Your task to perform on an android device: refresh tabs in the chrome app Image 0: 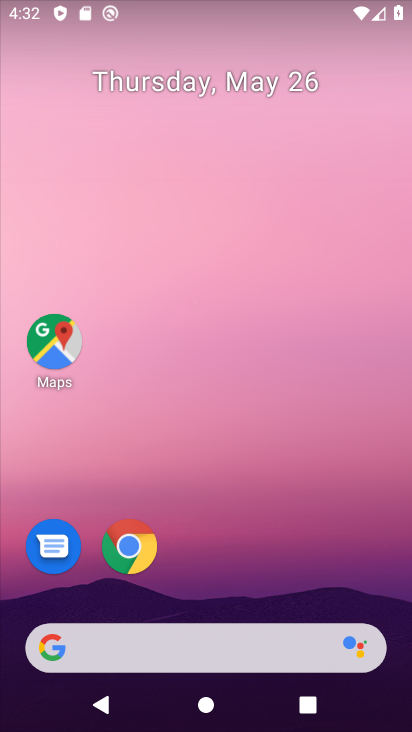
Step 0: click (136, 556)
Your task to perform on an android device: refresh tabs in the chrome app Image 1: 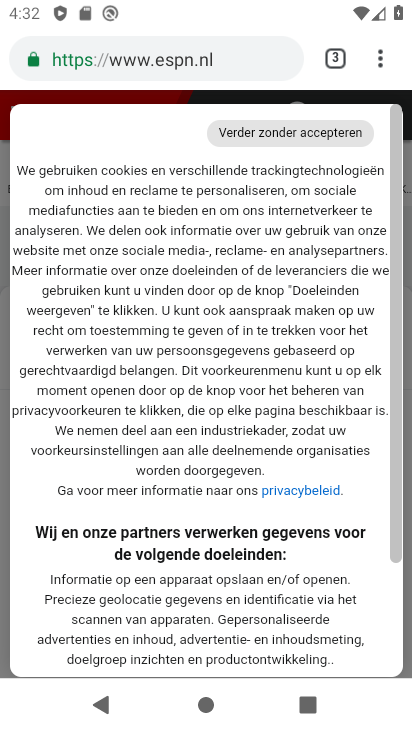
Step 1: click (371, 58)
Your task to perform on an android device: refresh tabs in the chrome app Image 2: 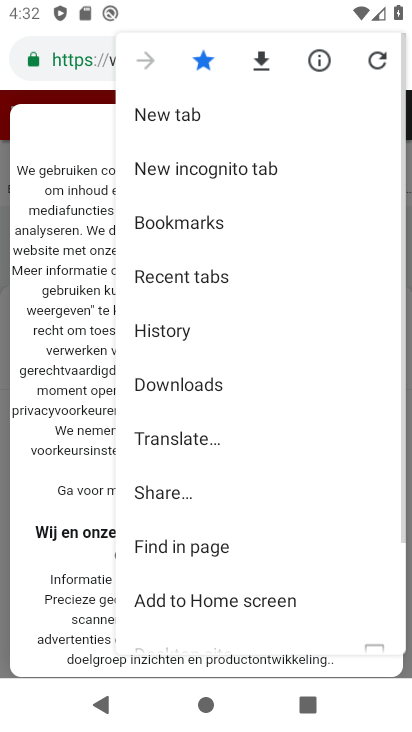
Step 2: click (372, 60)
Your task to perform on an android device: refresh tabs in the chrome app Image 3: 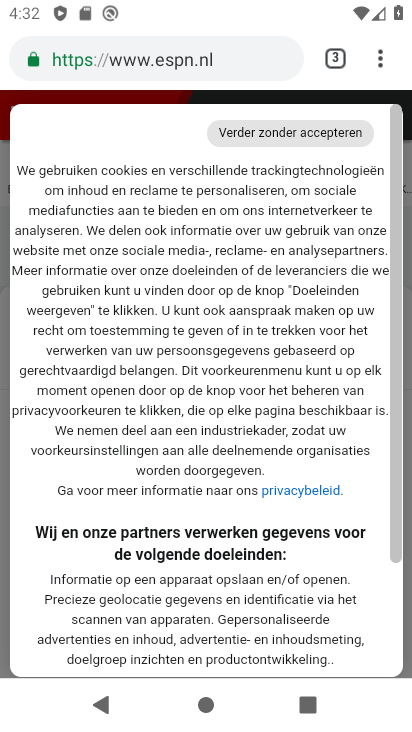
Step 3: task complete